Your task to perform on an android device: turn off location Image 0: 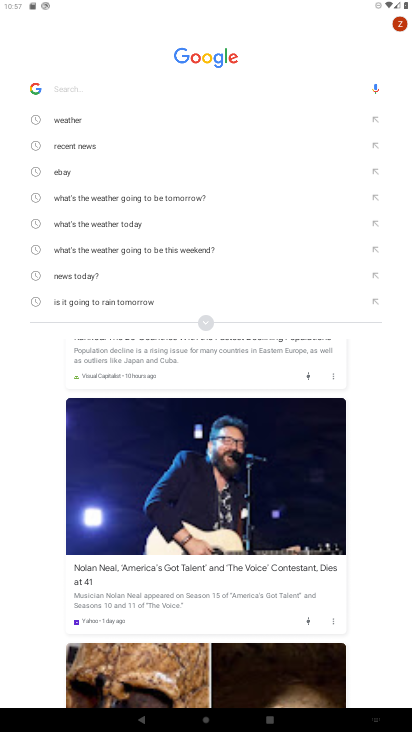
Step 0: press home button
Your task to perform on an android device: turn off location Image 1: 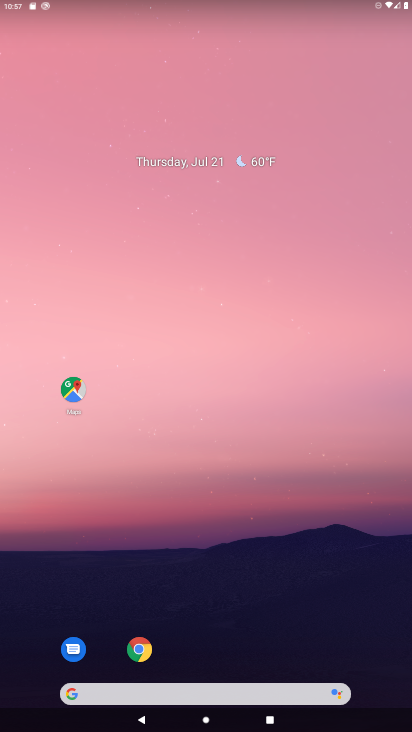
Step 1: drag from (390, 710) to (299, 184)
Your task to perform on an android device: turn off location Image 2: 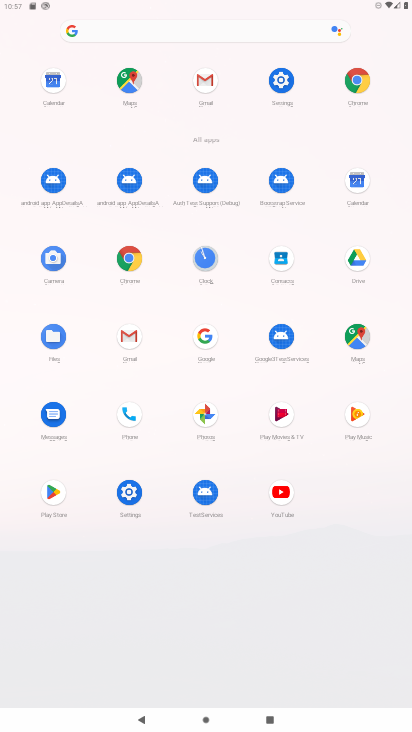
Step 2: click (289, 69)
Your task to perform on an android device: turn off location Image 3: 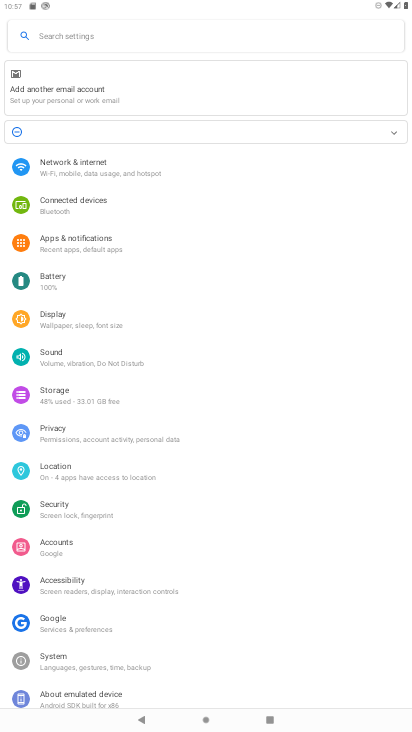
Step 3: click (56, 475)
Your task to perform on an android device: turn off location Image 4: 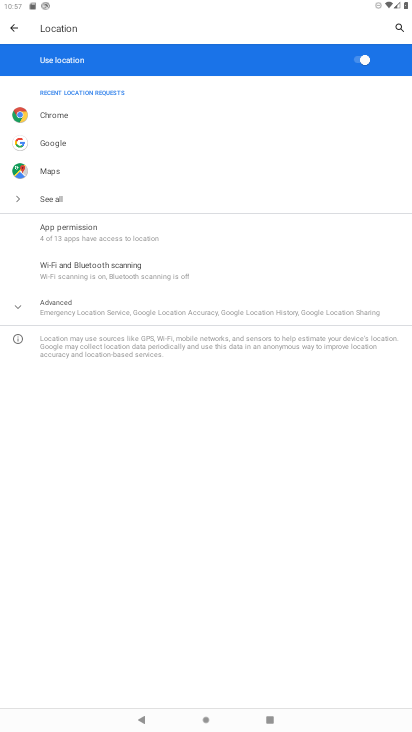
Step 4: click (357, 59)
Your task to perform on an android device: turn off location Image 5: 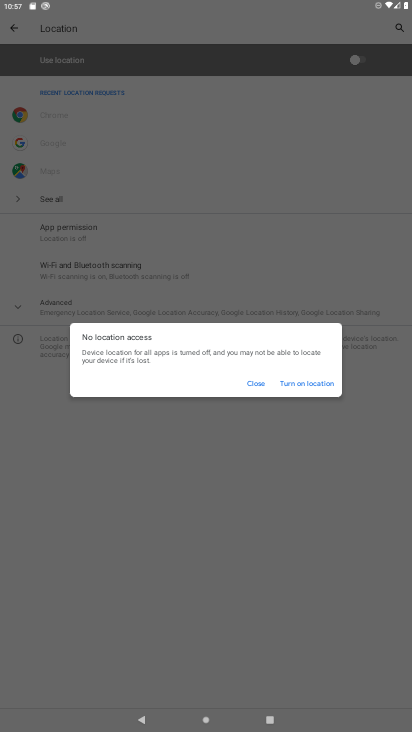
Step 5: click (263, 388)
Your task to perform on an android device: turn off location Image 6: 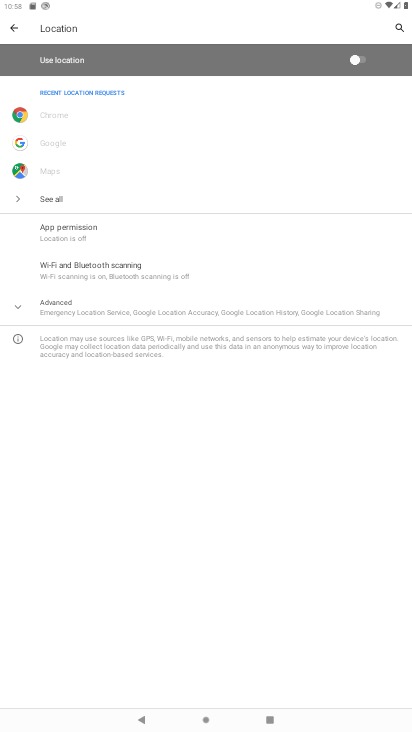
Step 6: task complete